Your task to perform on an android device: What's on my calendar today? Image 0: 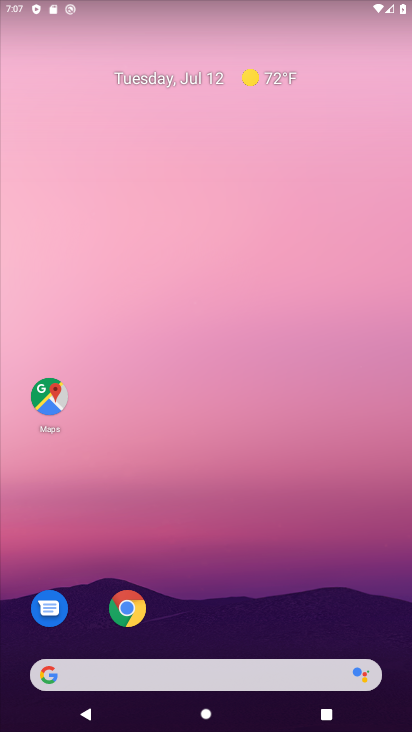
Step 0: drag from (221, 541) to (181, 107)
Your task to perform on an android device: What's on my calendar today? Image 1: 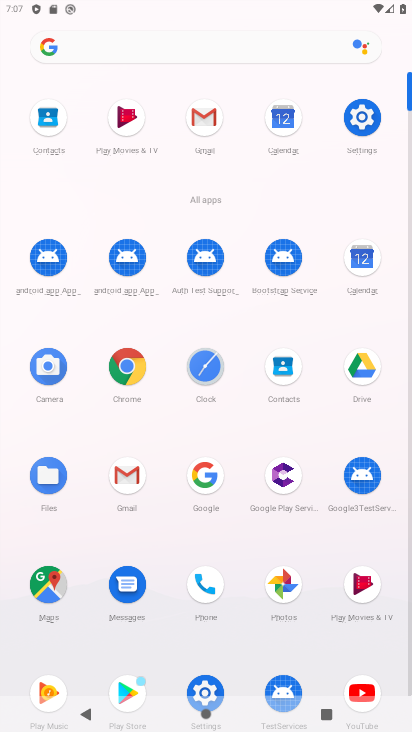
Step 1: click (355, 263)
Your task to perform on an android device: What's on my calendar today? Image 2: 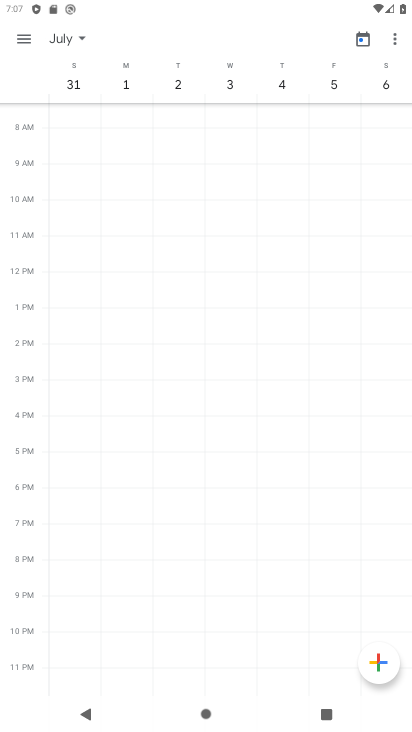
Step 2: click (21, 35)
Your task to perform on an android device: What's on my calendar today? Image 3: 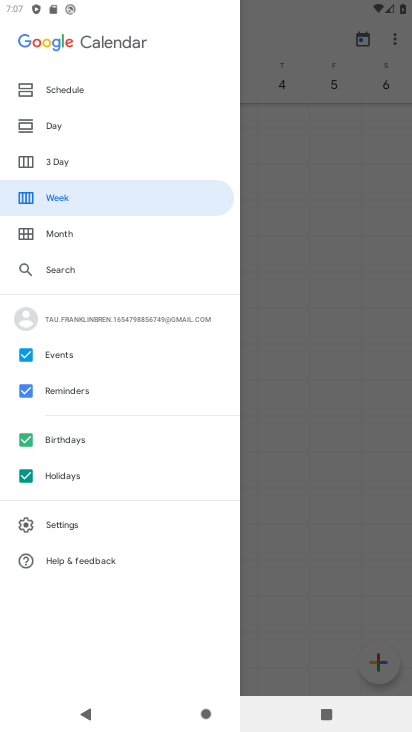
Step 3: click (47, 125)
Your task to perform on an android device: What's on my calendar today? Image 4: 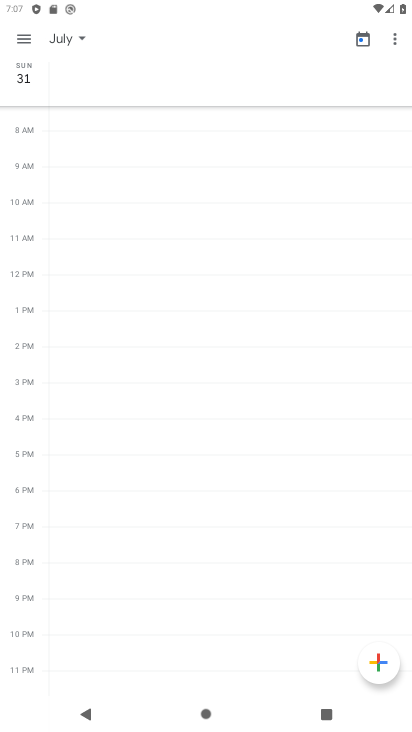
Step 4: click (80, 36)
Your task to perform on an android device: What's on my calendar today? Image 5: 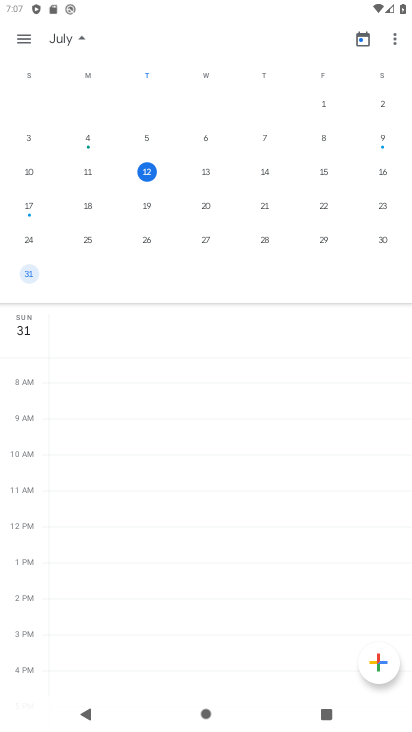
Step 5: click (147, 171)
Your task to perform on an android device: What's on my calendar today? Image 6: 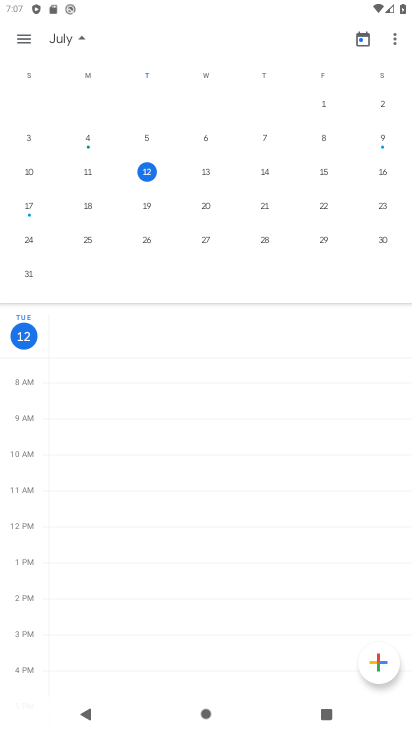
Step 6: task complete